Your task to perform on an android device: delete the emails in spam in the gmail app Image 0: 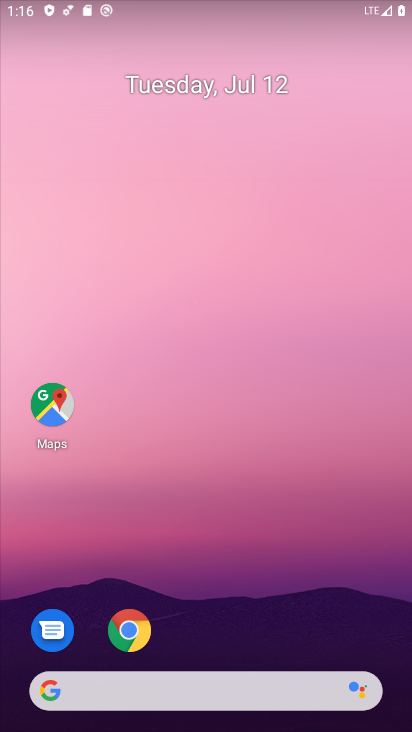
Step 0: drag from (387, 638) to (341, 107)
Your task to perform on an android device: delete the emails in spam in the gmail app Image 1: 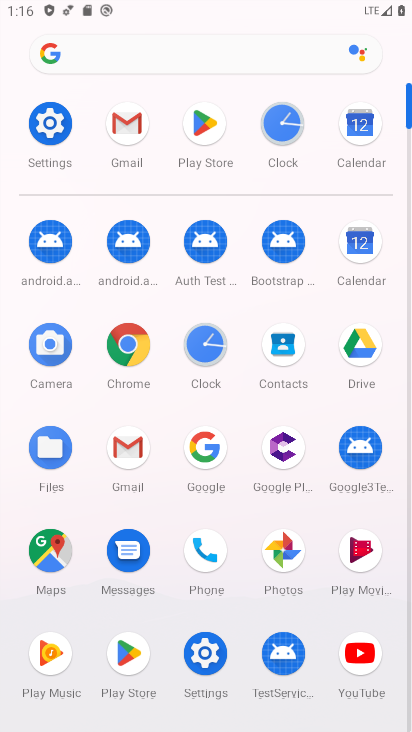
Step 1: click (126, 449)
Your task to perform on an android device: delete the emails in spam in the gmail app Image 2: 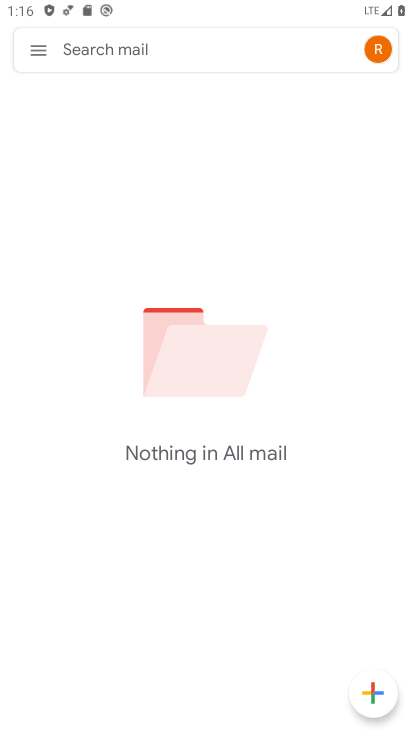
Step 2: click (30, 50)
Your task to perform on an android device: delete the emails in spam in the gmail app Image 3: 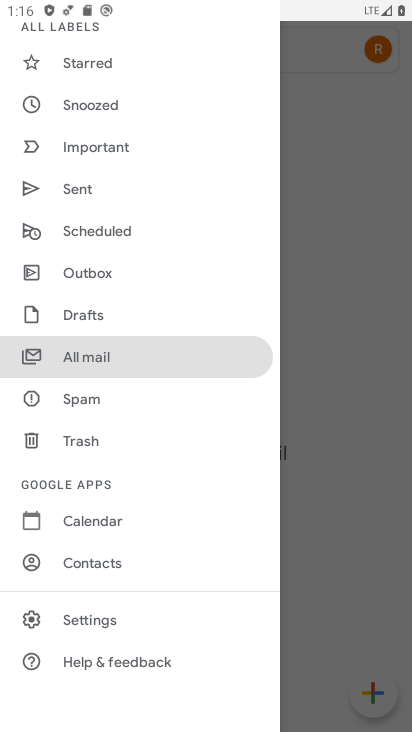
Step 3: click (71, 398)
Your task to perform on an android device: delete the emails in spam in the gmail app Image 4: 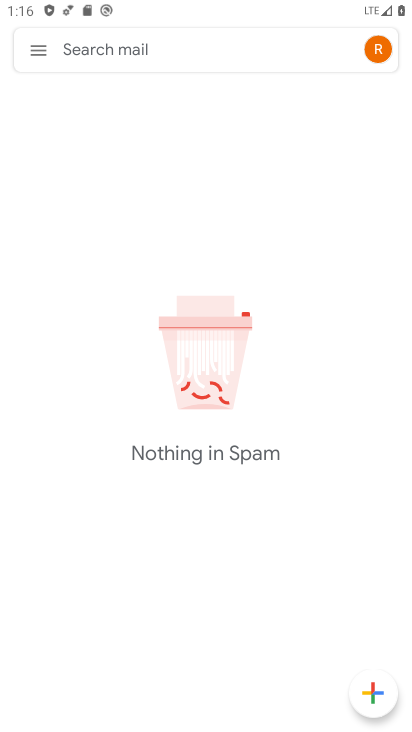
Step 4: task complete